Your task to perform on an android device: check the backup settings in the google photos Image 0: 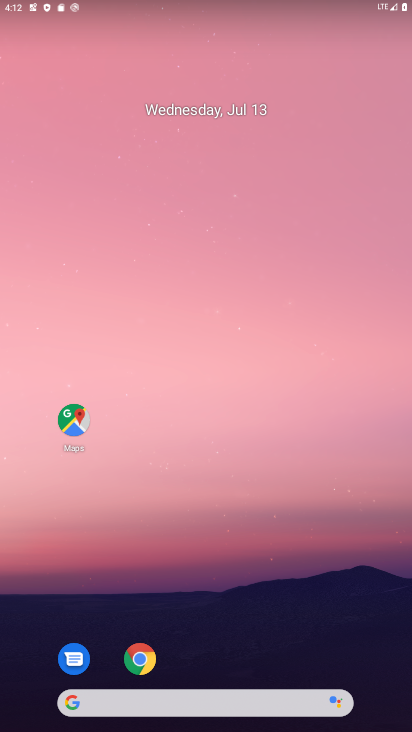
Step 0: press home button
Your task to perform on an android device: check the backup settings in the google photos Image 1: 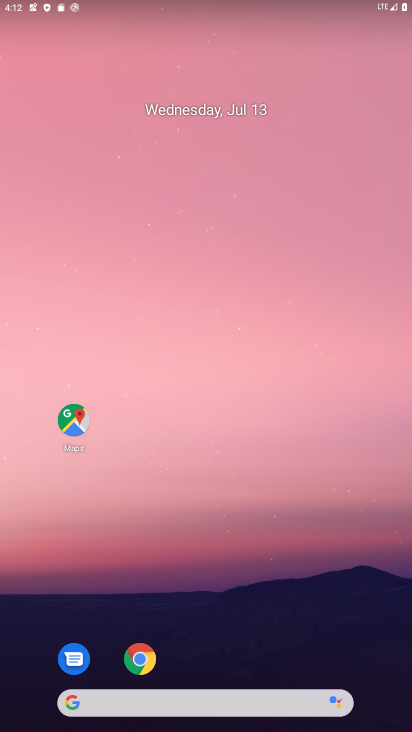
Step 1: drag from (210, 671) to (186, 57)
Your task to perform on an android device: check the backup settings in the google photos Image 2: 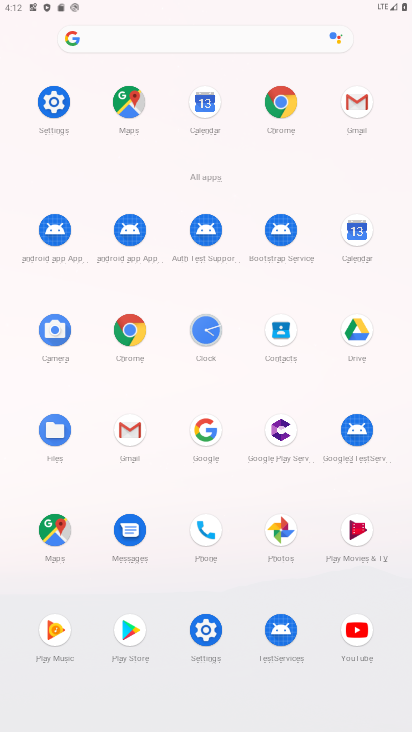
Step 2: click (277, 525)
Your task to perform on an android device: check the backup settings in the google photos Image 3: 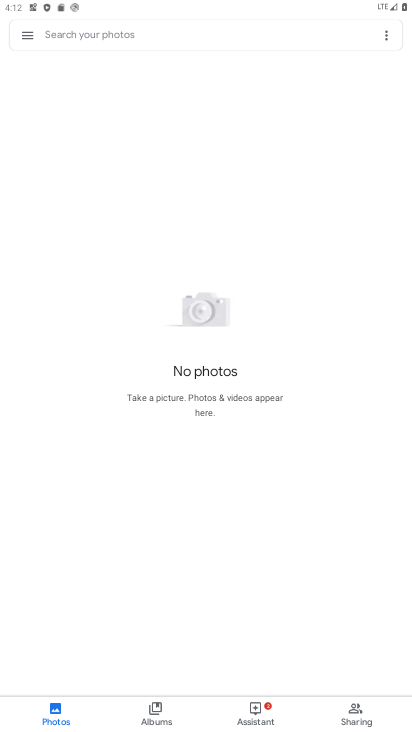
Step 3: click (24, 32)
Your task to perform on an android device: check the backup settings in the google photos Image 4: 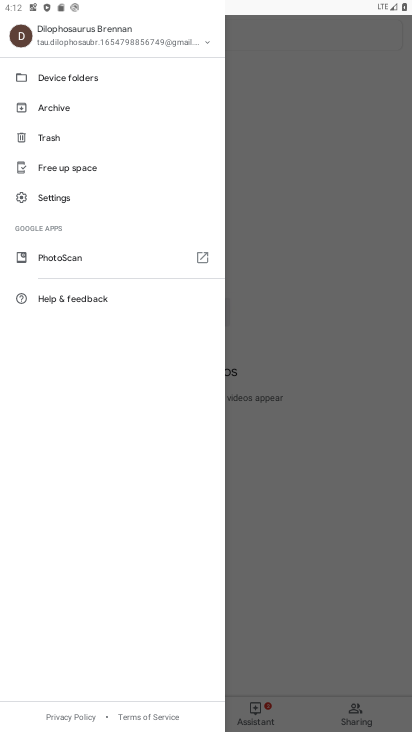
Step 4: click (65, 198)
Your task to perform on an android device: check the backup settings in the google photos Image 5: 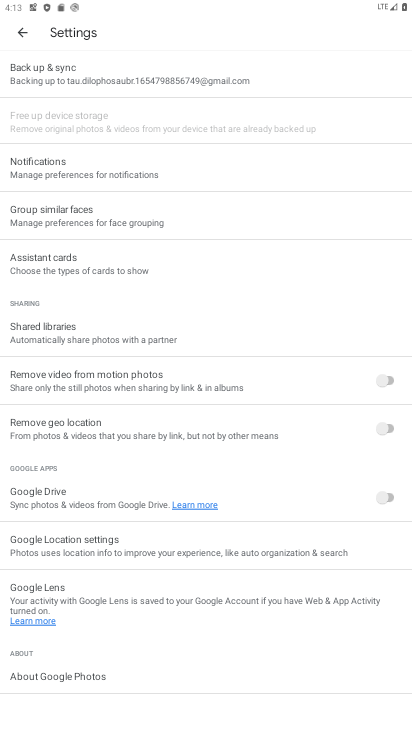
Step 5: task complete